Your task to perform on an android device: move a message to another label in the gmail app Image 0: 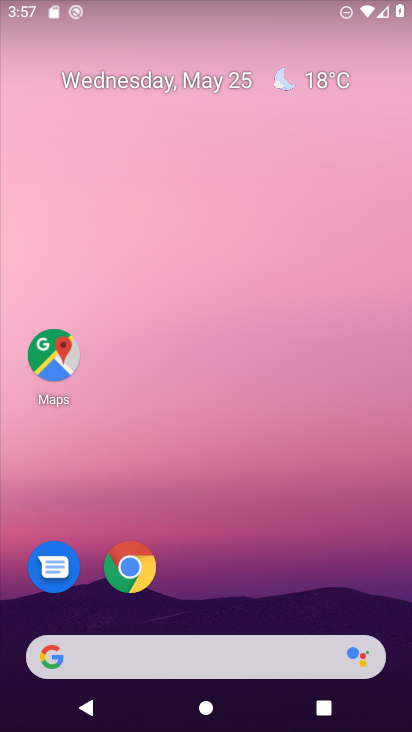
Step 0: drag from (379, 565) to (381, 235)
Your task to perform on an android device: move a message to another label in the gmail app Image 1: 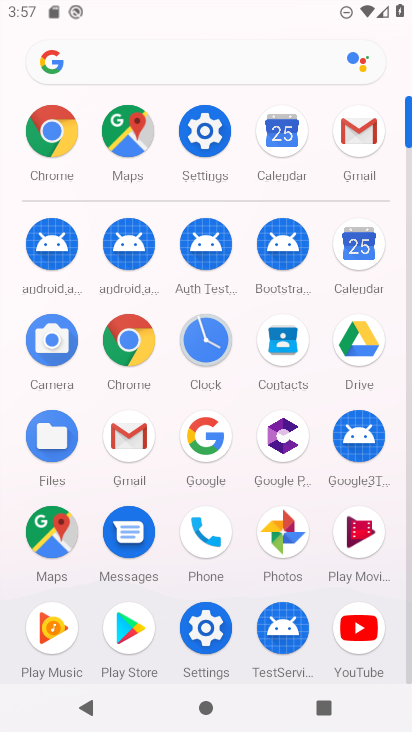
Step 1: click (142, 464)
Your task to perform on an android device: move a message to another label in the gmail app Image 2: 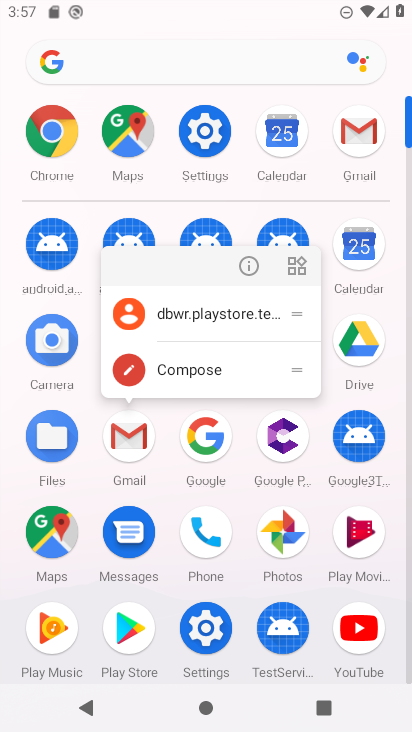
Step 2: click (142, 464)
Your task to perform on an android device: move a message to another label in the gmail app Image 3: 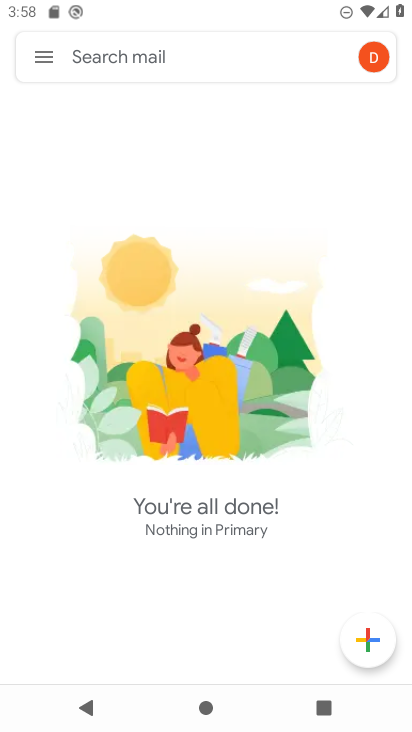
Step 3: click (43, 63)
Your task to perform on an android device: move a message to another label in the gmail app Image 4: 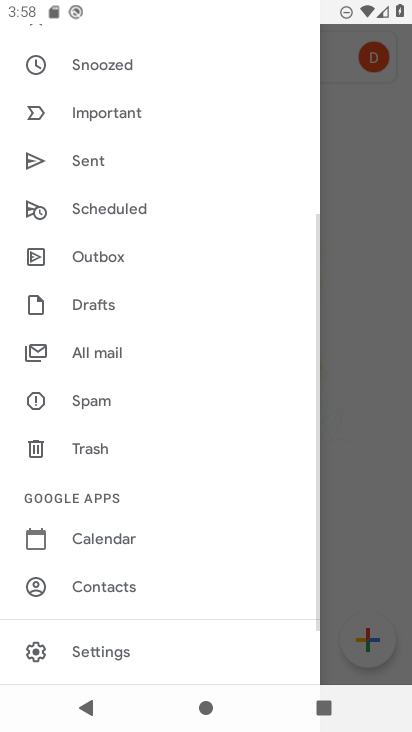
Step 4: drag from (218, 486) to (228, 351)
Your task to perform on an android device: move a message to another label in the gmail app Image 5: 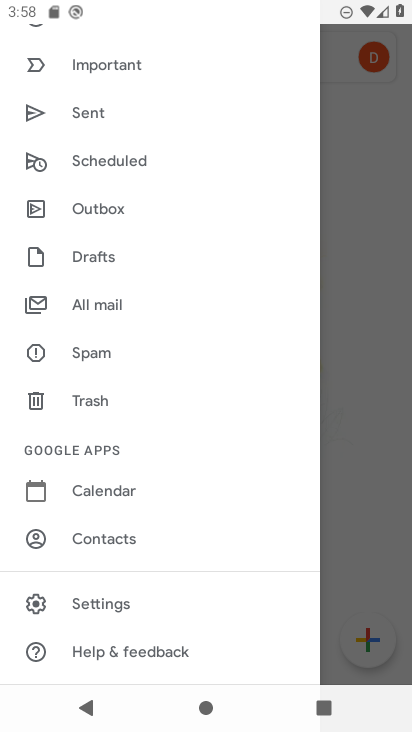
Step 5: drag from (227, 490) to (213, 313)
Your task to perform on an android device: move a message to another label in the gmail app Image 6: 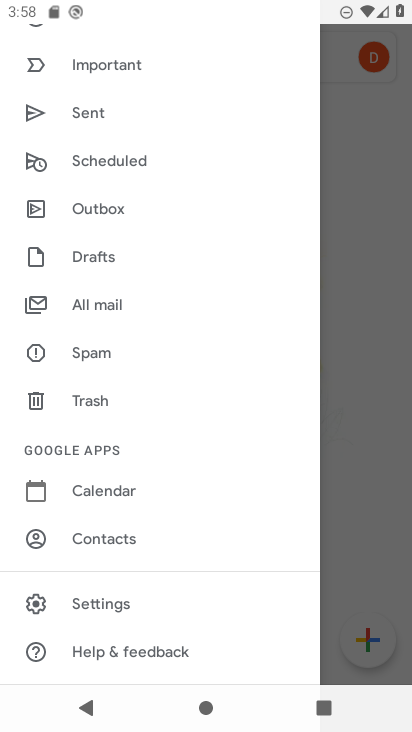
Step 6: drag from (220, 292) to (212, 416)
Your task to perform on an android device: move a message to another label in the gmail app Image 7: 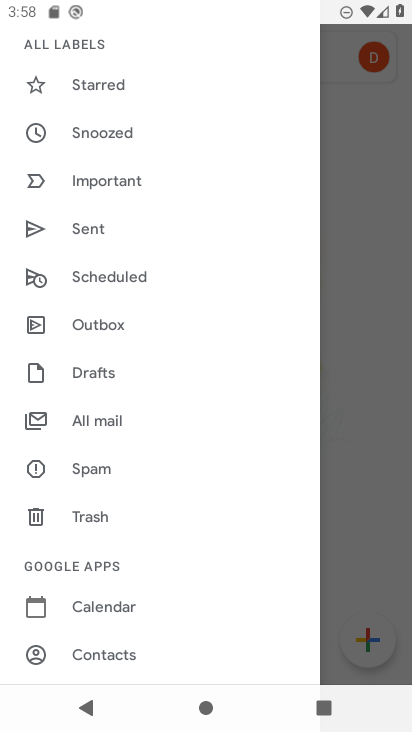
Step 7: drag from (226, 248) to (213, 348)
Your task to perform on an android device: move a message to another label in the gmail app Image 8: 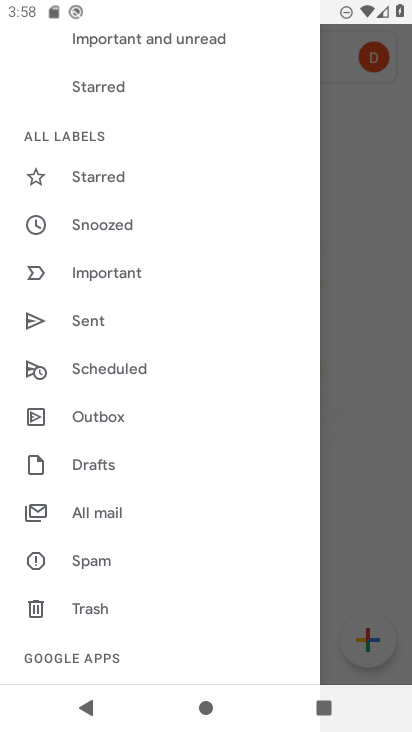
Step 8: drag from (232, 213) to (234, 340)
Your task to perform on an android device: move a message to another label in the gmail app Image 9: 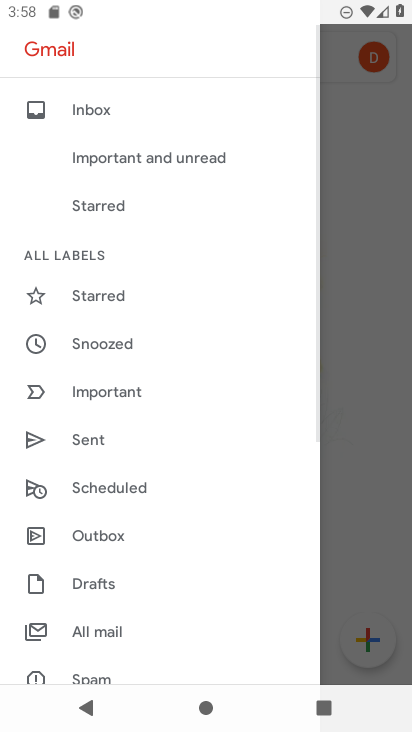
Step 9: drag from (239, 237) to (245, 387)
Your task to perform on an android device: move a message to another label in the gmail app Image 10: 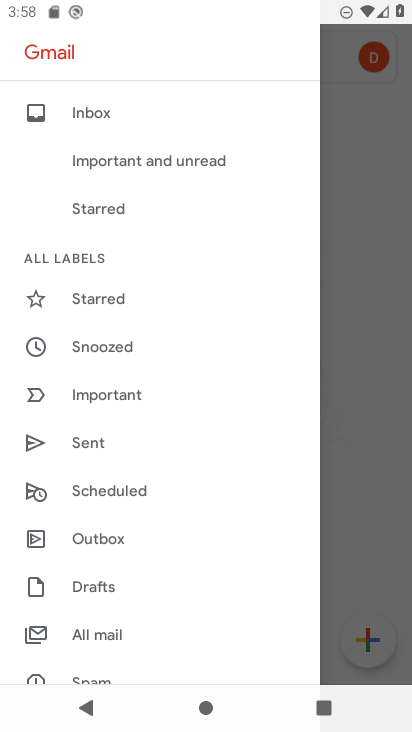
Step 10: drag from (244, 484) to (248, 372)
Your task to perform on an android device: move a message to another label in the gmail app Image 11: 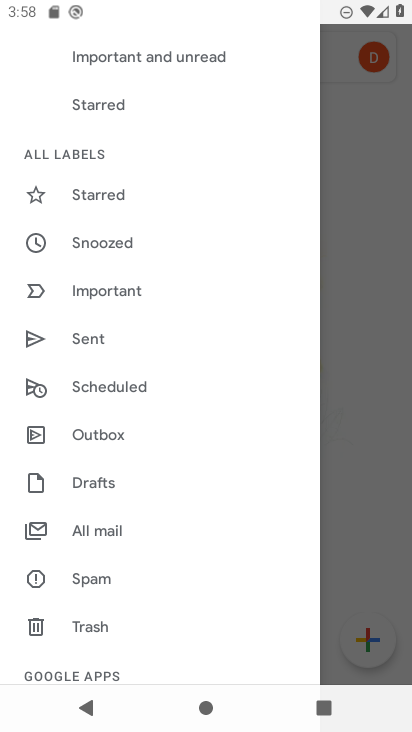
Step 11: drag from (241, 536) to (254, 422)
Your task to perform on an android device: move a message to another label in the gmail app Image 12: 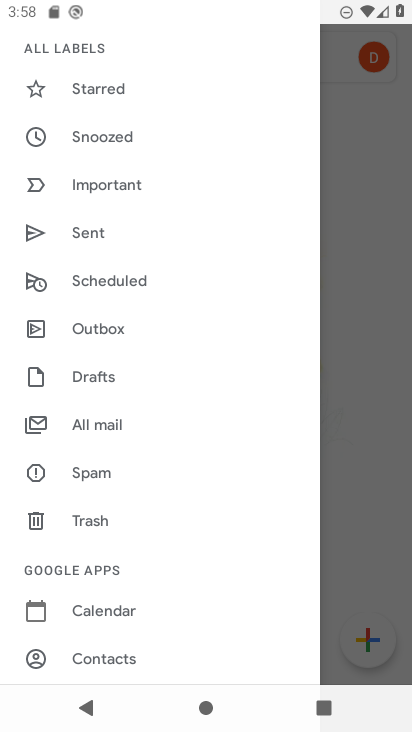
Step 12: drag from (259, 242) to (261, 397)
Your task to perform on an android device: move a message to another label in the gmail app Image 13: 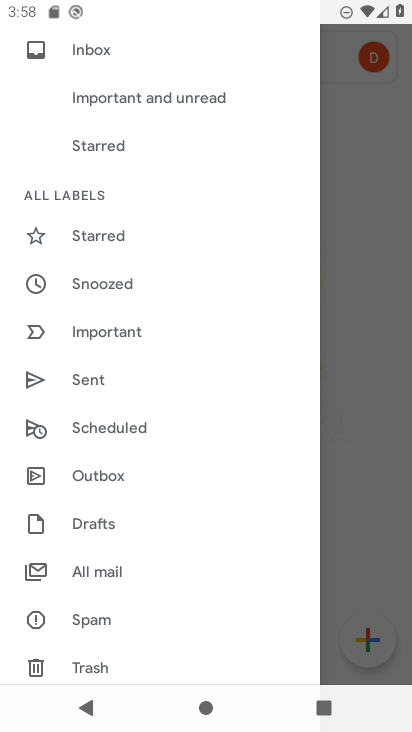
Step 13: drag from (254, 248) to (240, 396)
Your task to perform on an android device: move a message to another label in the gmail app Image 14: 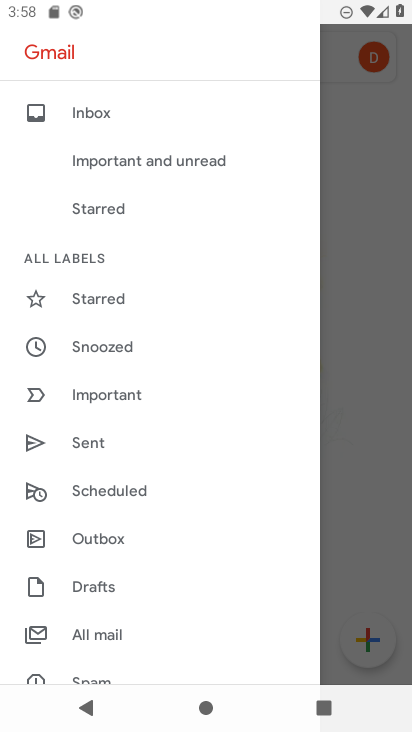
Step 14: click (147, 120)
Your task to perform on an android device: move a message to another label in the gmail app Image 15: 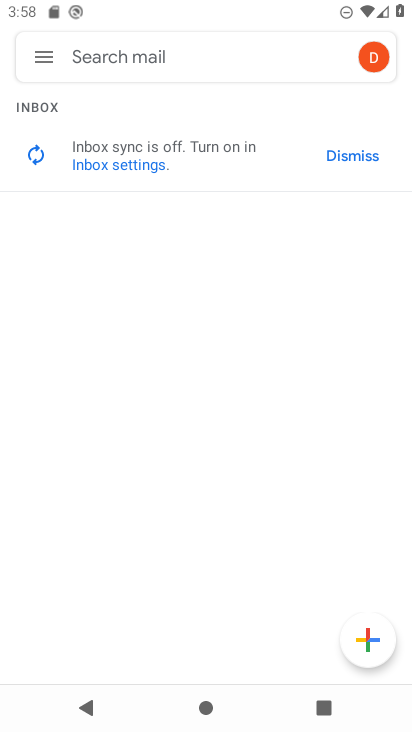
Step 15: task complete